Your task to perform on an android device: open app "Speedtest by Ookla" Image 0: 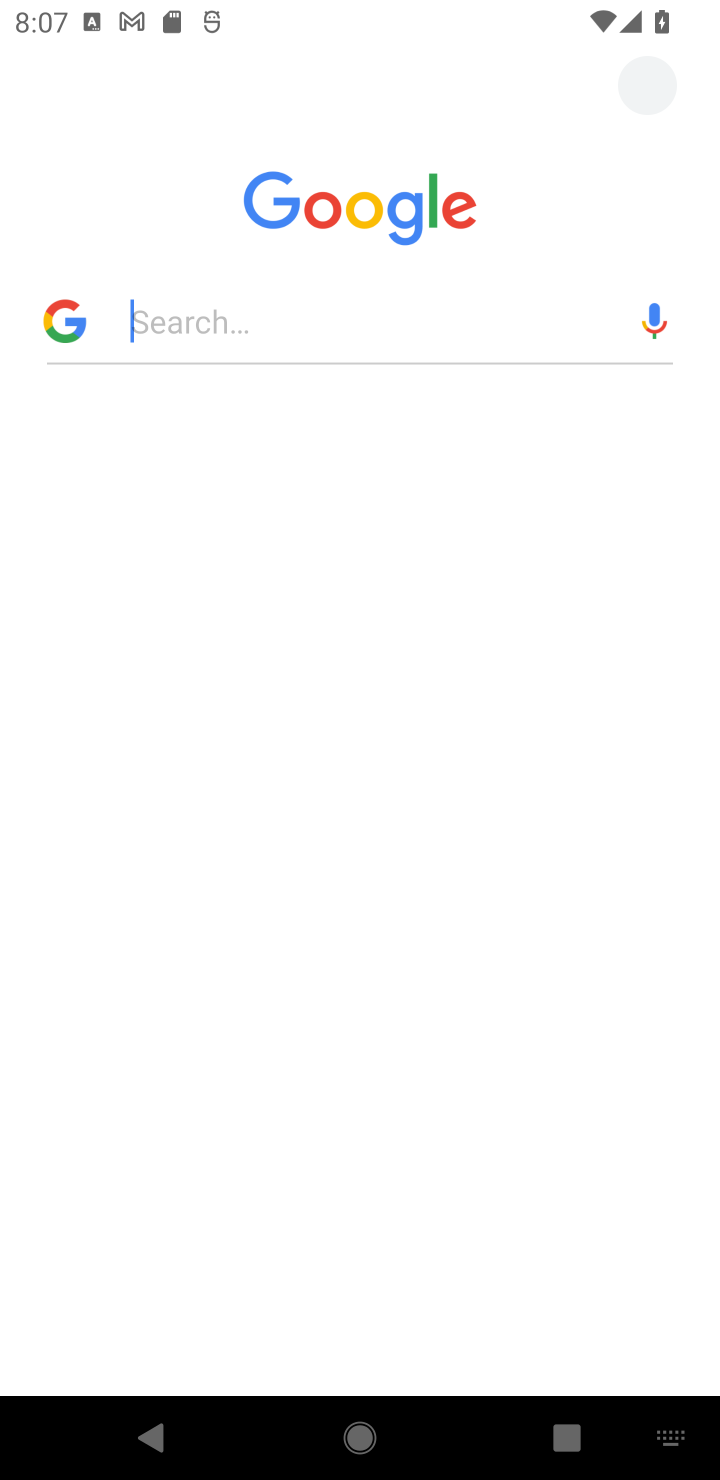
Step 0: press home button
Your task to perform on an android device: open app "Speedtest by Ookla" Image 1: 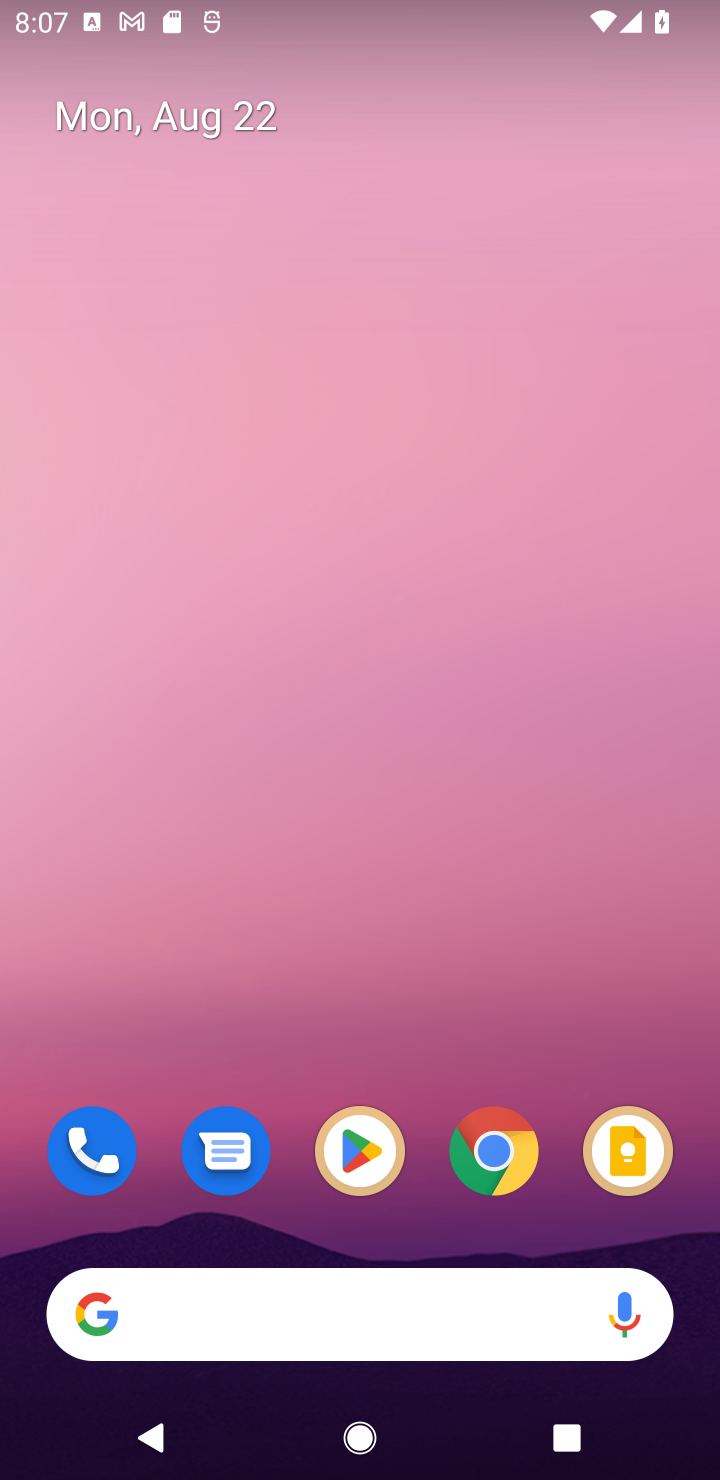
Step 1: click (355, 1159)
Your task to perform on an android device: open app "Speedtest by Ookla" Image 2: 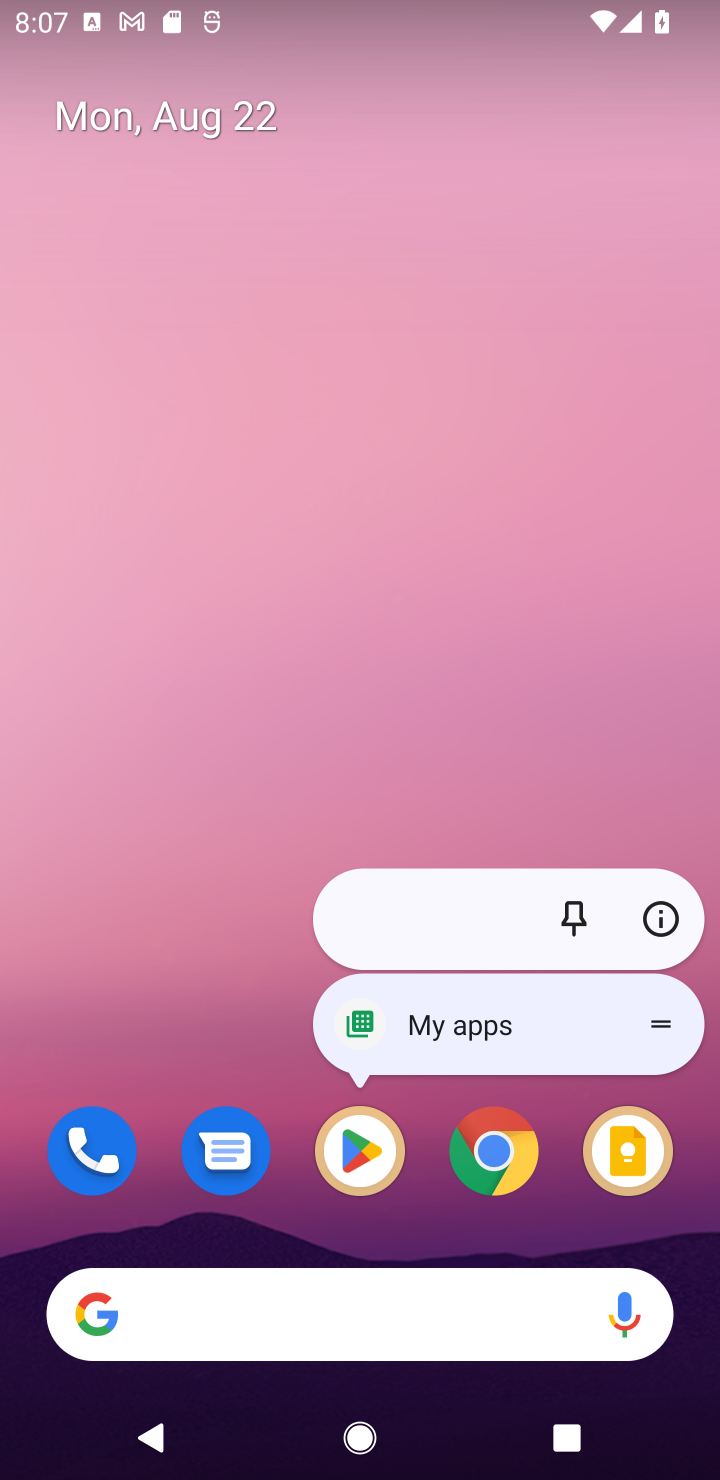
Step 2: click (357, 1166)
Your task to perform on an android device: open app "Speedtest by Ookla" Image 3: 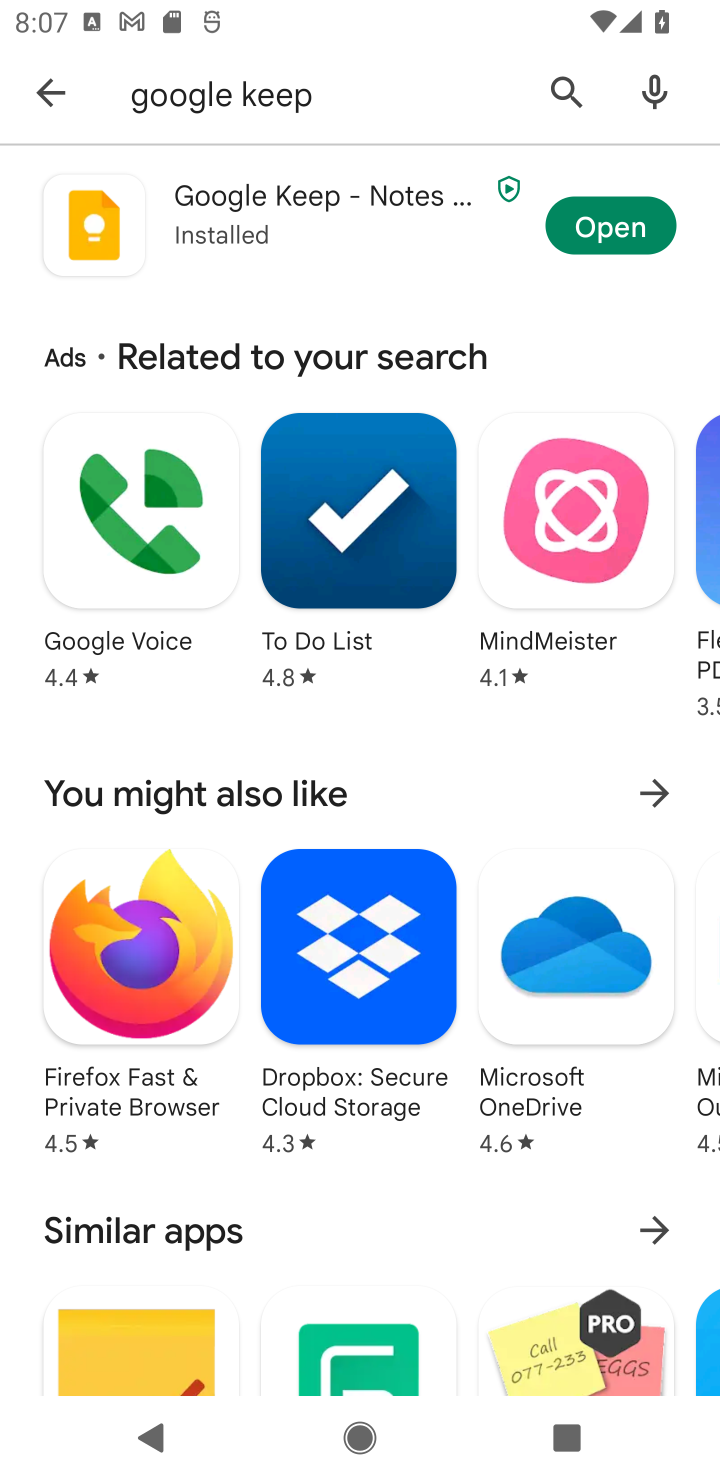
Step 3: click (555, 88)
Your task to perform on an android device: open app "Speedtest by Ookla" Image 4: 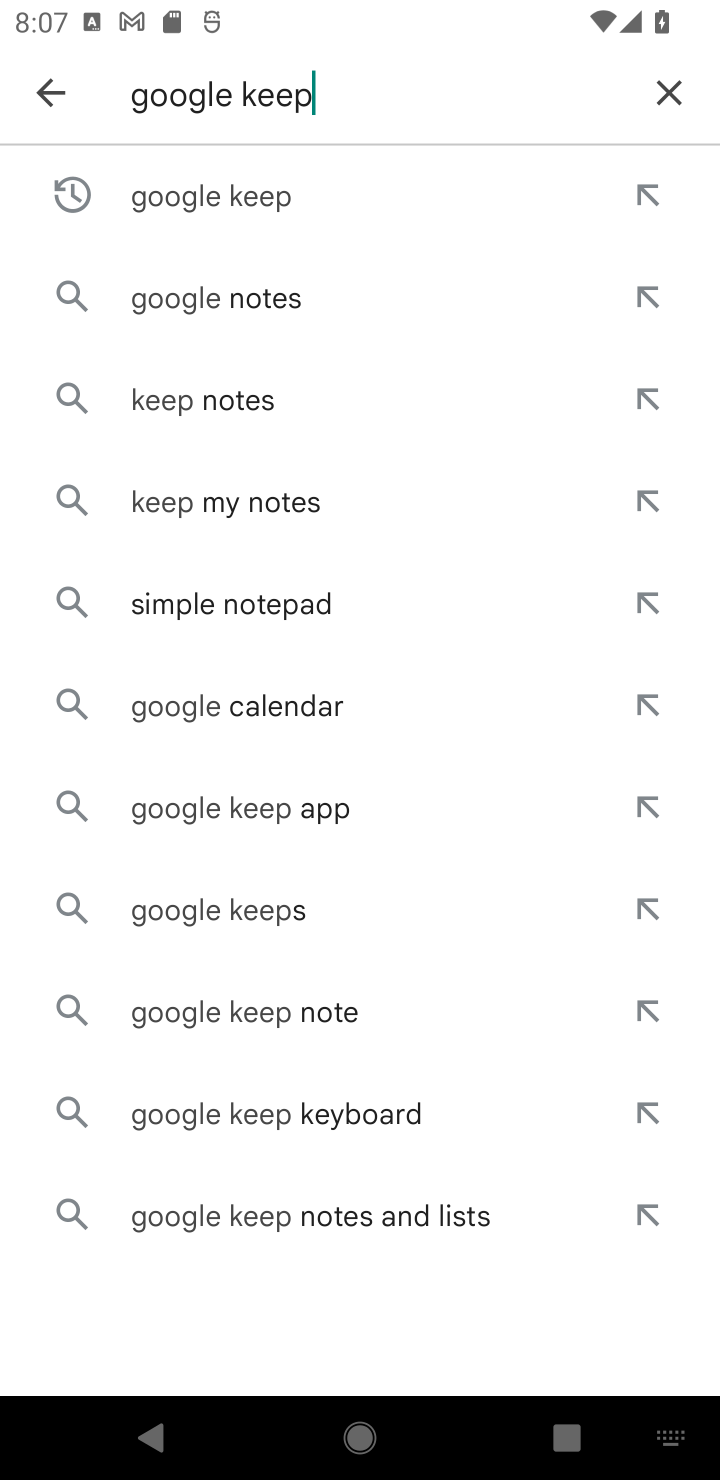
Step 4: click (660, 83)
Your task to perform on an android device: open app "Speedtest by Ookla" Image 5: 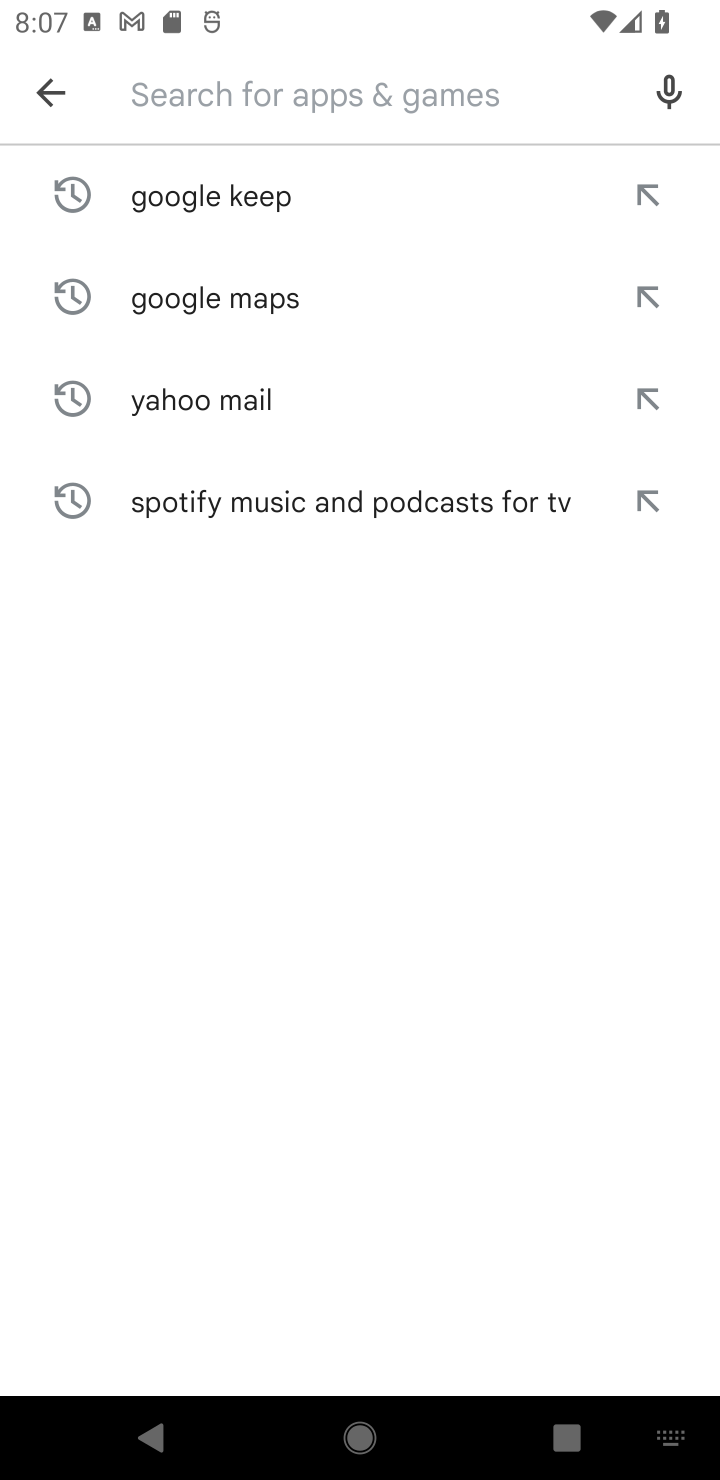
Step 5: type "Speedtest by Ookla"
Your task to perform on an android device: open app "Speedtest by Ookla" Image 6: 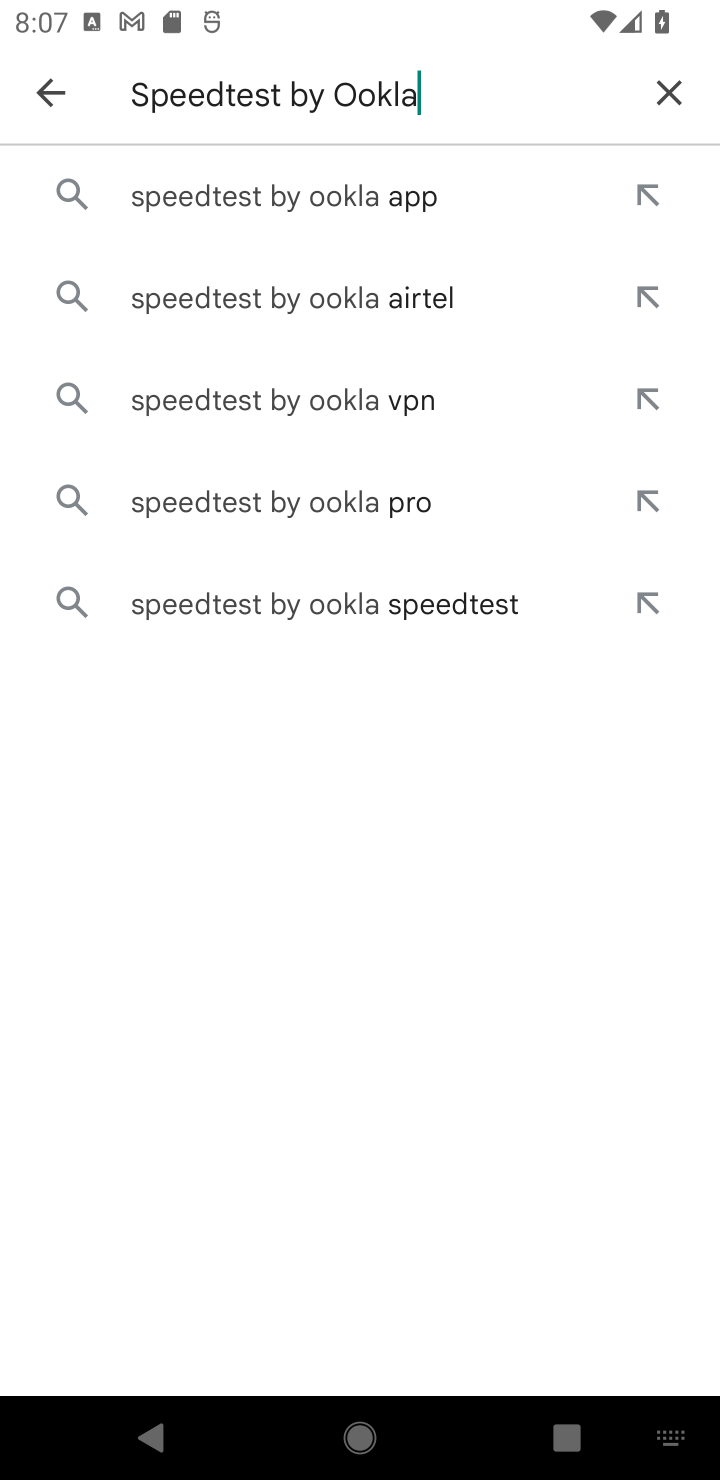
Step 6: click (275, 198)
Your task to perform on an android device: open app "Speedtest by Ookla" Image 7: 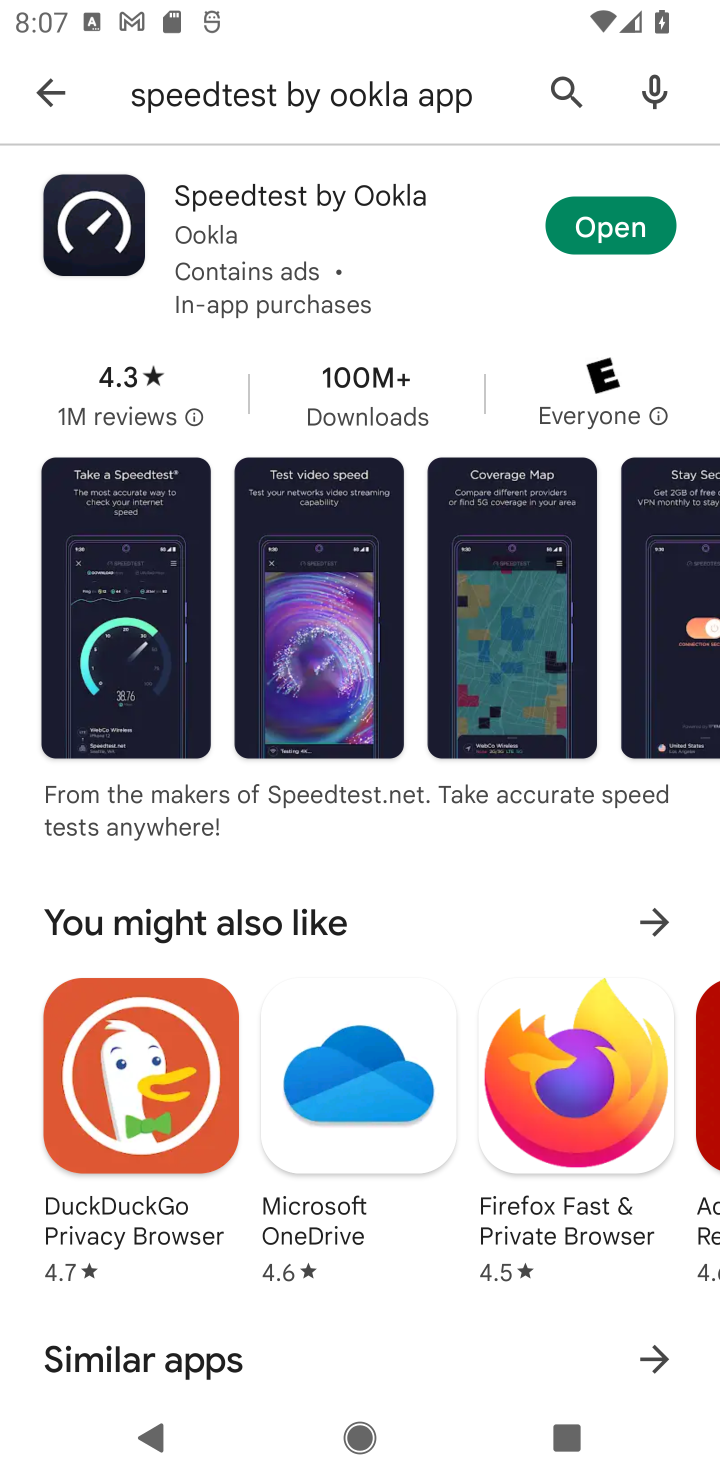
Step 7: click (620, 211)
Your task to perform on an android device: open app "Speedtest by Ookla" Image 8: 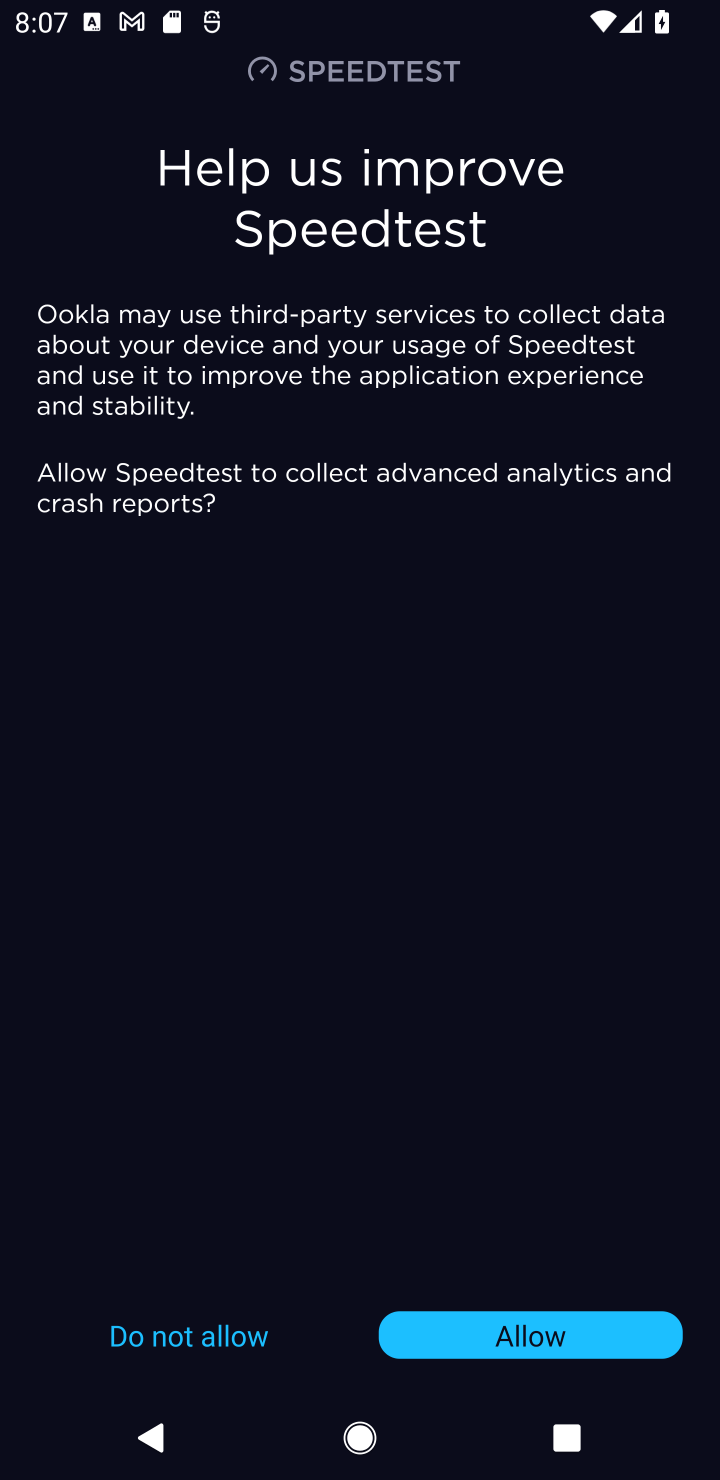
Step 8: task complete